Your task to perform on an android device: toggle priority inbox in the gmail app Image 0: 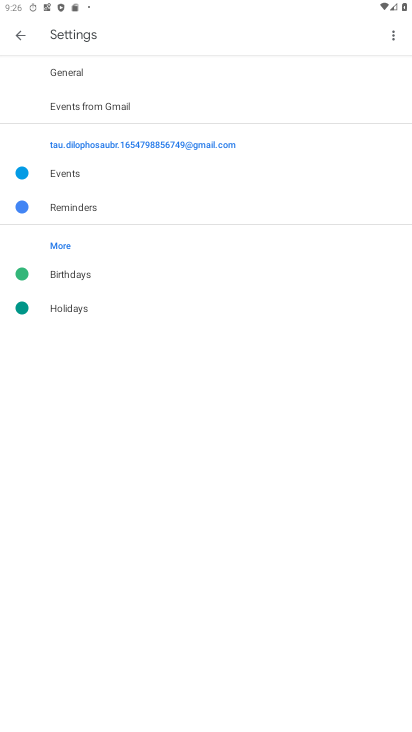
Step 0: press home button
Your task to perform on an android device: toggle priority inbox in the gmail app Image 1: 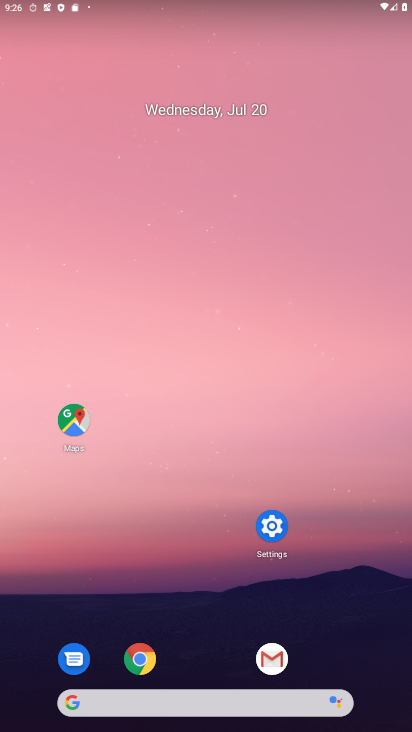
Step 1: click (267, 642)
Your task to perform on an android device: toggle priority inbox in the gmail app Image 2: 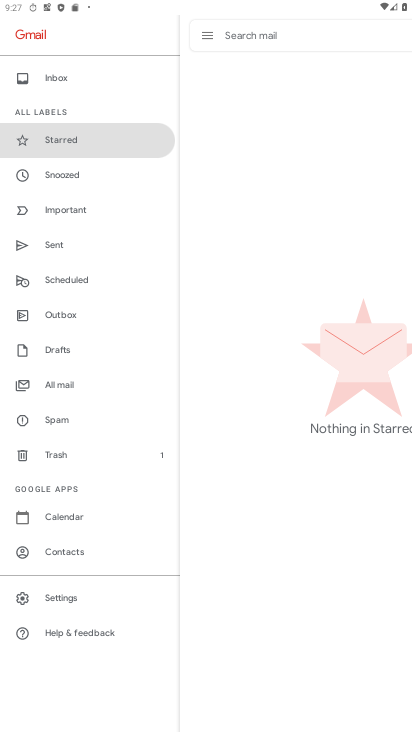
Step 2: click (67, 596)
Your task to perform on an android device: toggle priority inbox in the gmail app Image 3: 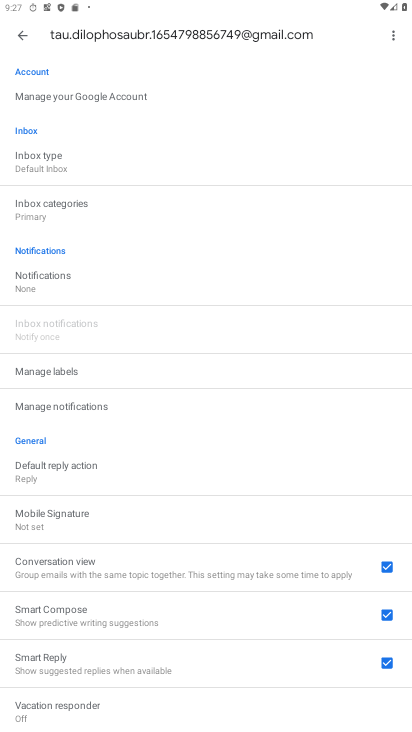
Step 3: click (106, 212)
Your task to perform on an android device: toggle priority inbox in the gmail app Image 4: 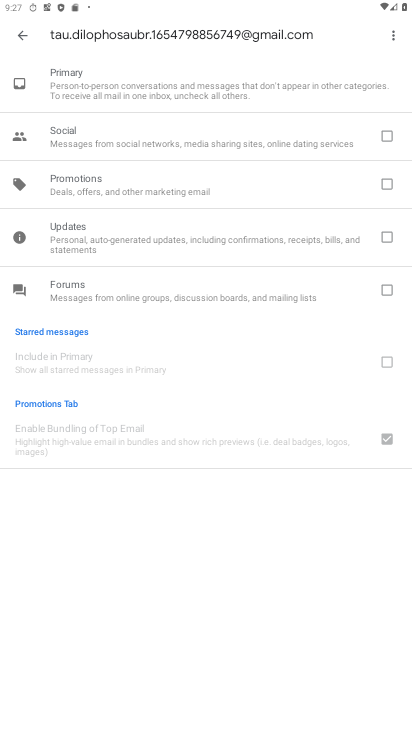
Step 4: click (15, 45)
Your task to perform on an android device: toggle priority inbox in the gmail app Image 5: 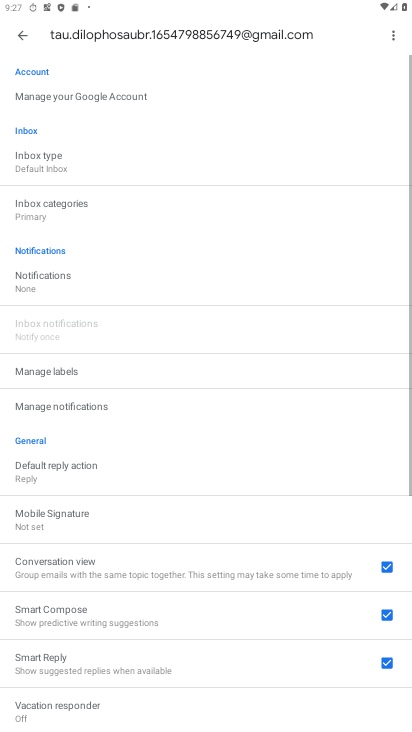
Step 5: click (68, 155)
Your task to perform on an android device: toggle priority inbox in the gmail app Image 6: 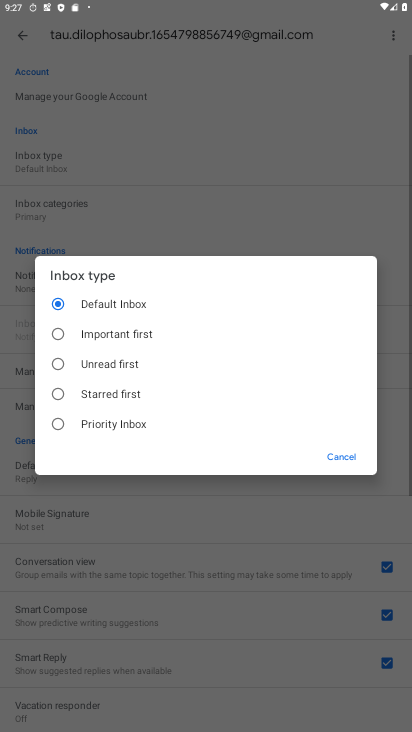
Step 6: click (105, 422)
Your task to perform on an android device: toggle priority inbox in the gmail app Image 7: 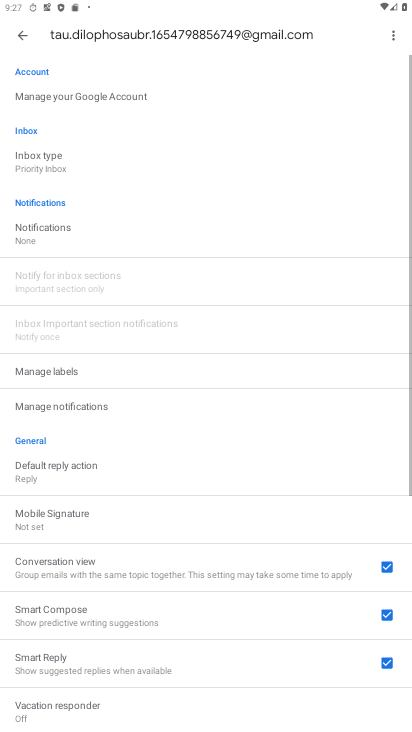
Step 7: click (54, 159)
Your task to perform on an android device: toggle priority inbox in the gmail app Image 8: 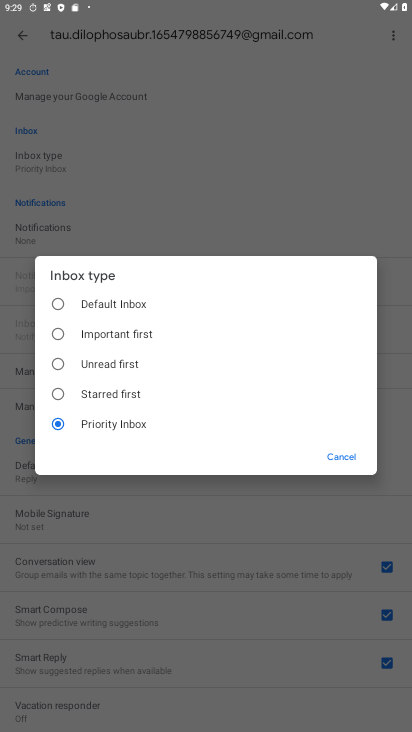
Step 8: task complete